Your task to perform on an android device: Go to Maps Image 0: 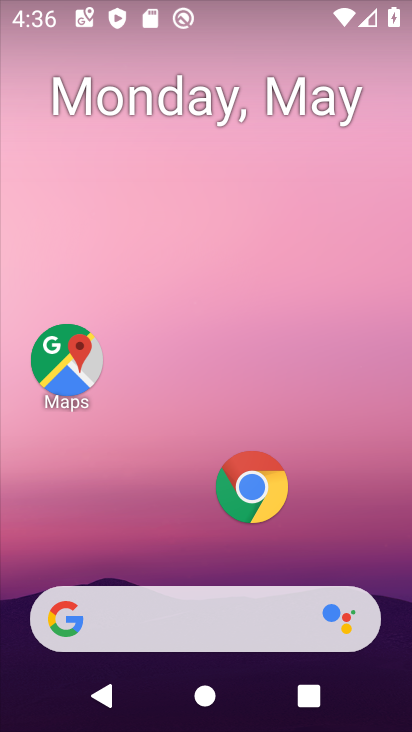
Step 0: click (49, 358)
Your task to perform on an android device: Go to Maps Image 1: 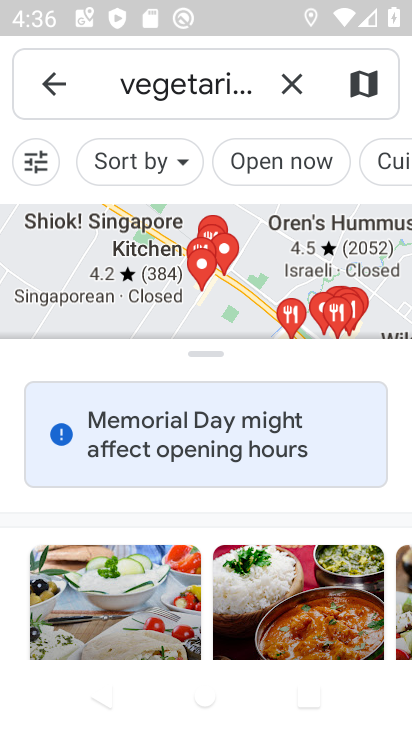
Step 1: task complete